Your task to perform on an android device: allow cookies in the chrome app Image 0: 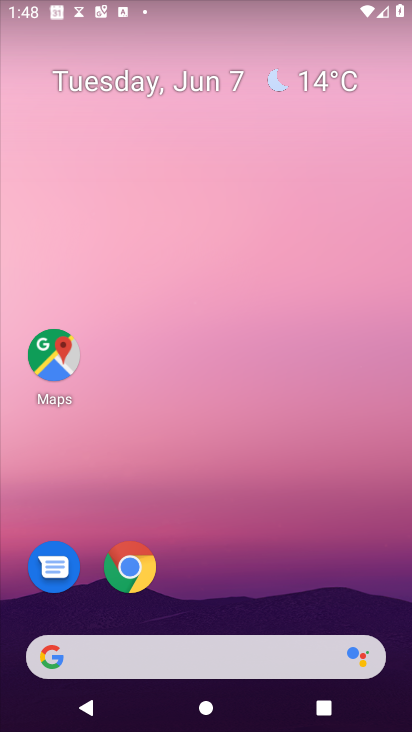
Step 0: drag from (251, 616) to (369, 27)
Your task to perform on an android device: allow cookies in the chrome app Image 1: 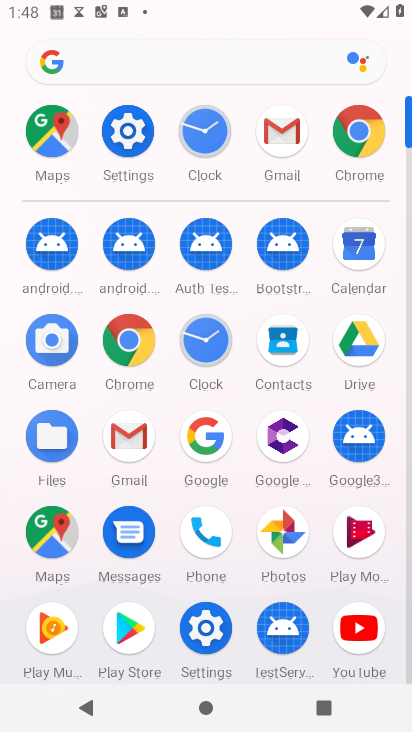
Step 1: click (127, 356)
Your task to perform on an android device: allow cookies in the chrome app Image 2: 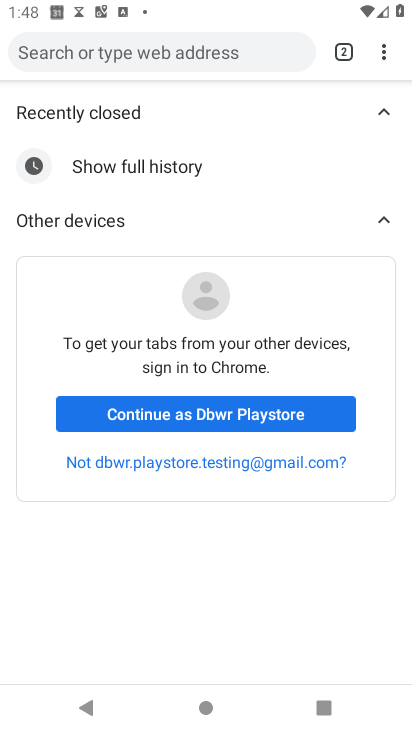
Step 2: drag from (389, 45) to (321, 483)
Your task to perform on an android device: allow cookies in the chrome app Image 3: 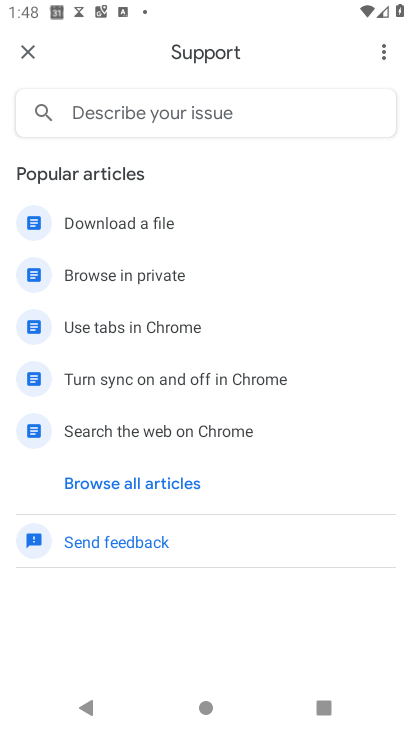
Step 3: press back button
Your task to perform on an android device: allow cookies in the chrome app Image 4: 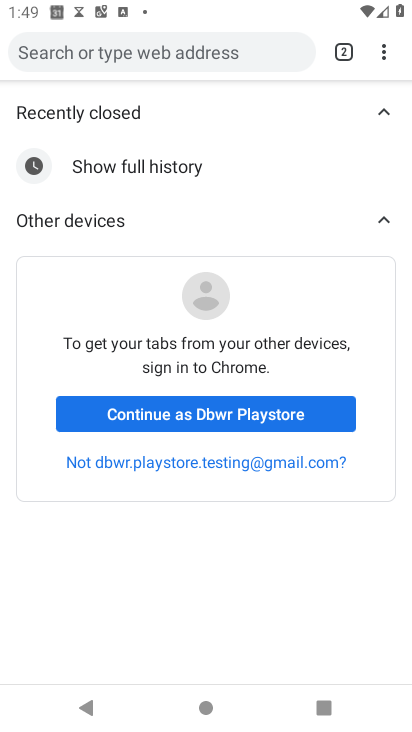
Step 4: drag from (387, 52) to (243, 424)
Your task to perform on an android device: allow cookies in the chrome app Image 5: 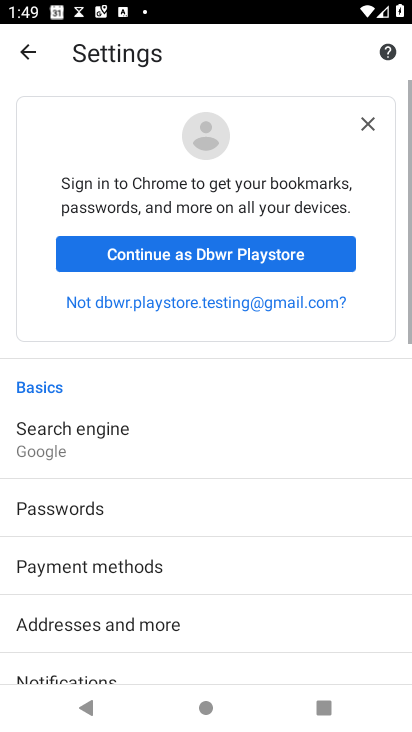
Step 5: drag from (196, 565) to (232, 46)
Your task to perform on an android device: allow cookies in the chrome app Image 6: 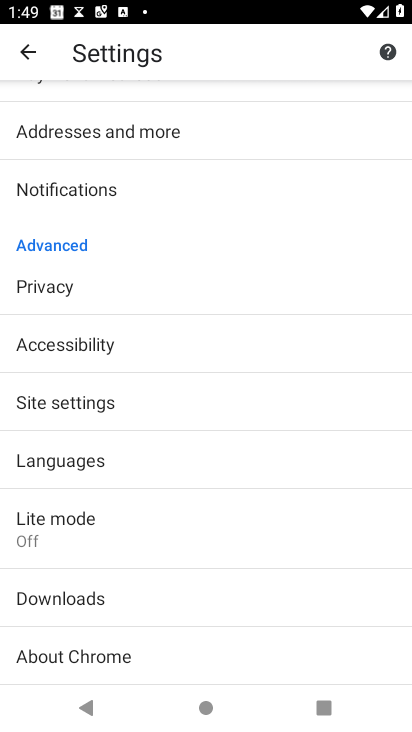
Step 6: click (79, 390)
Your task to perform on an android device: allow cookies in the chrome app Image 7: 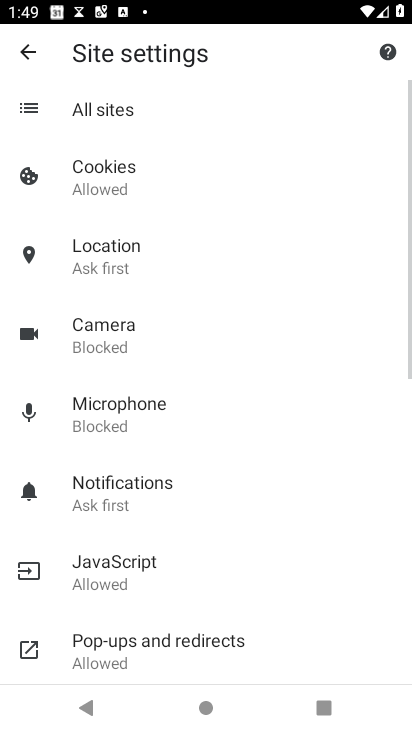
Step 7: click (164, 186)
Your task to perform on an android device: allow cookies in the chrome app Image 8: 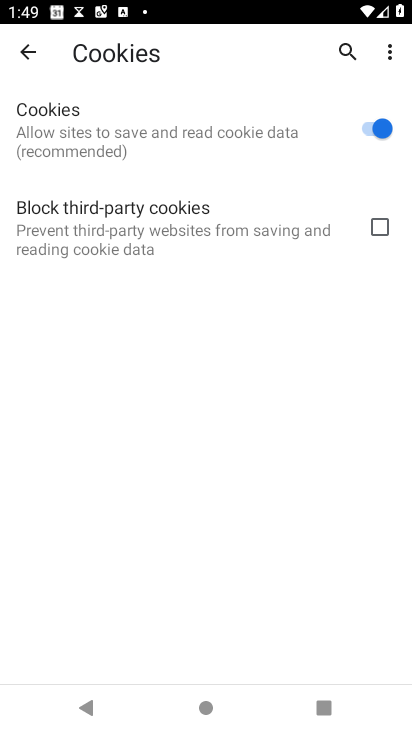
Step 8: task complete